Your task to perform on an android device: Go to location settings Image 0: 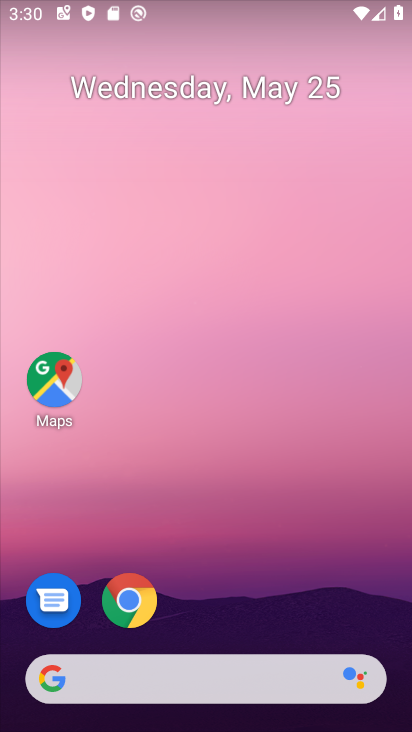
Step 0: press home button
Your task to perform on an android device: Go to location settings Image 1: 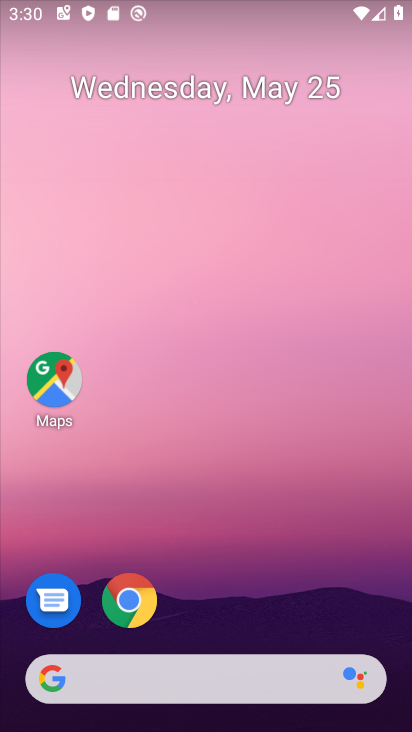
Step 1: drag from (42, 432) to (189, 116)
Your task to perform on an android device: Go to location settings Image 2: 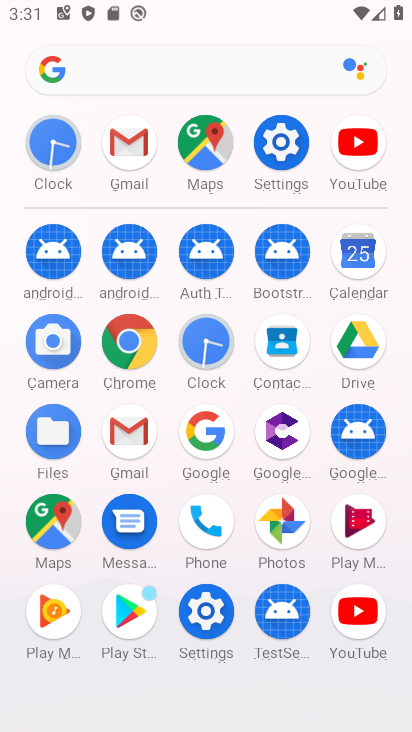
Step 2: click (209, 604)
Your task to perform on an android device: Go to location settings Image 3: 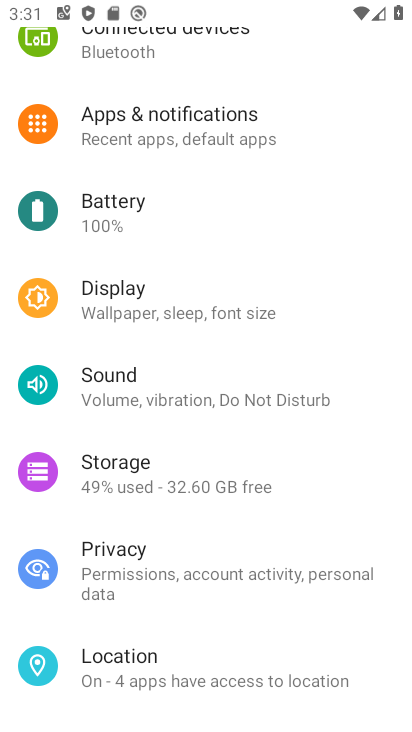
Step 3: click (147, 675)
Your task to perform on an android device: Go to location settings Image 4: 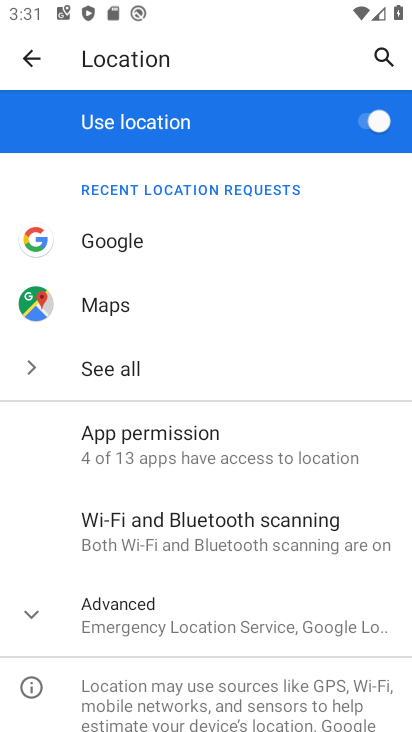
Step 4: task complete